Your task to perform on an android device: change the clock display to show seconds Image 0: 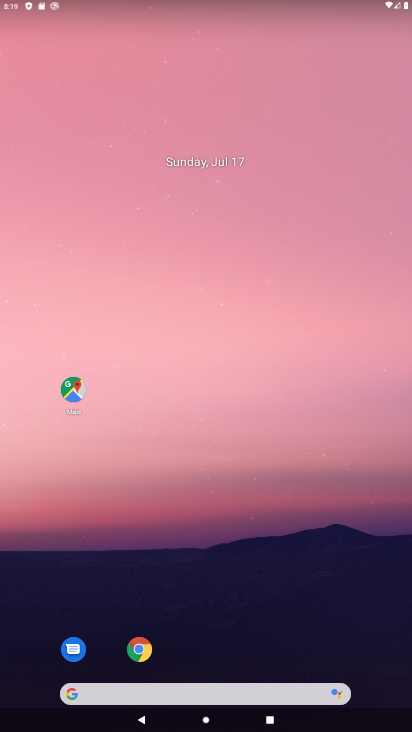
Step 0: drag from (197, 607) to (203, 115)
Your task to perform on an android device: change the clock display to show seconds Image 1: 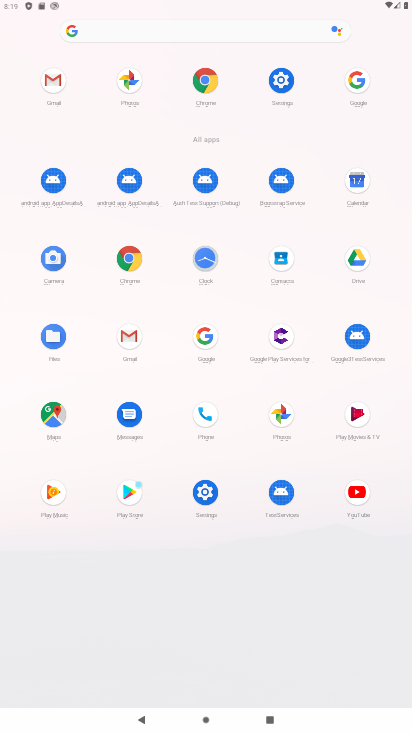
Step 1: click (204, 254)
Your task to perform on an android device: change the clock display to show seconds Image 2: 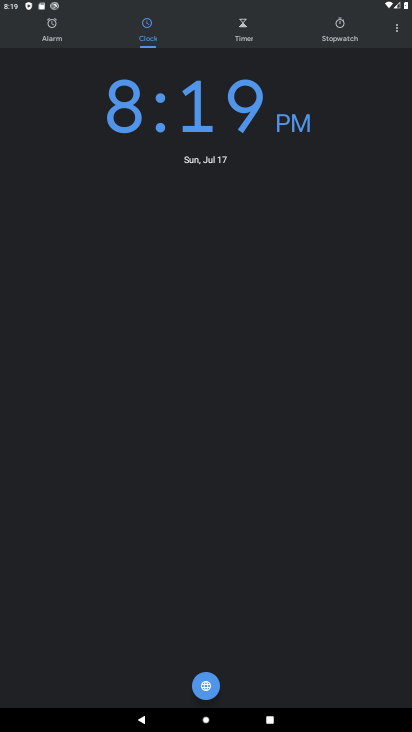
Step 2: click (395, 27)
Your task to perform on an android device: change the clock display to show seconds Image 3: 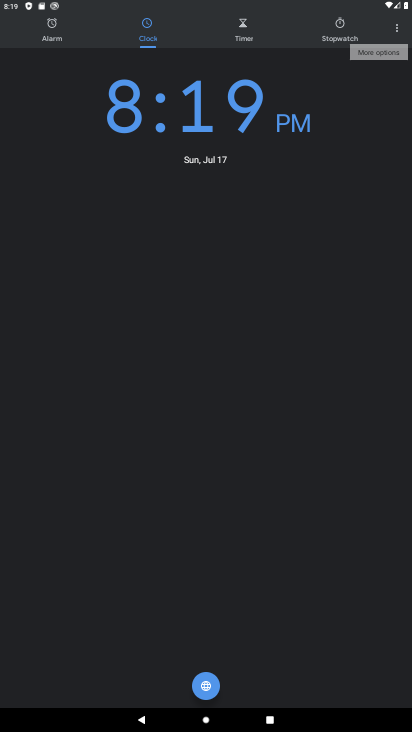
Step 3: click (391, 29)
Your task to perform on an android device: change the clock display to show seconds Image 4: 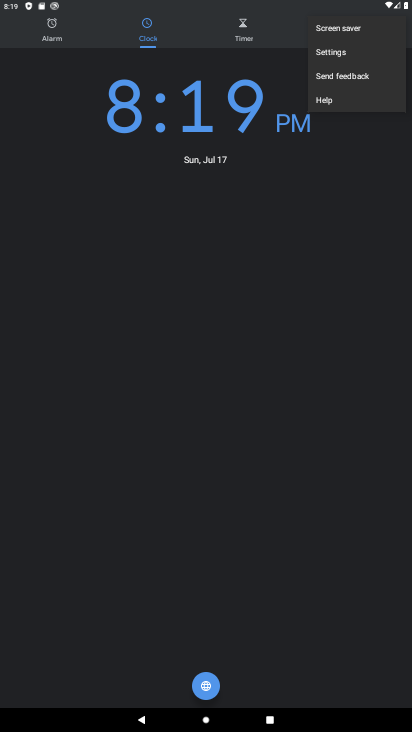
Step 4: click (332, 47)
Your task to perform on an android device: change the clock display to show seconds Image 5: 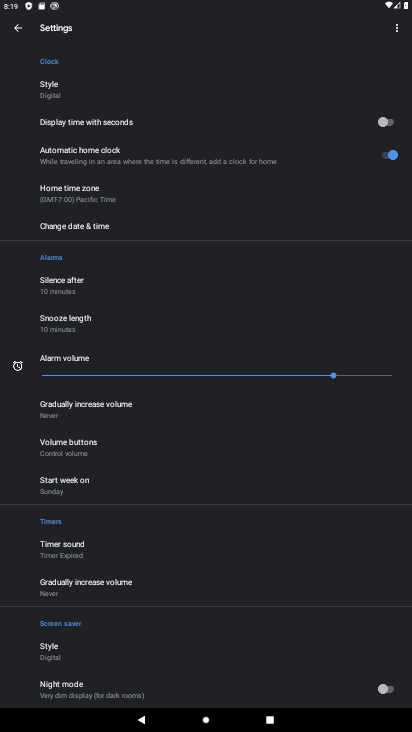
Step 5: click (392, 118)
Your task to perform on an android device: change the clock display to show seconds Image 6: 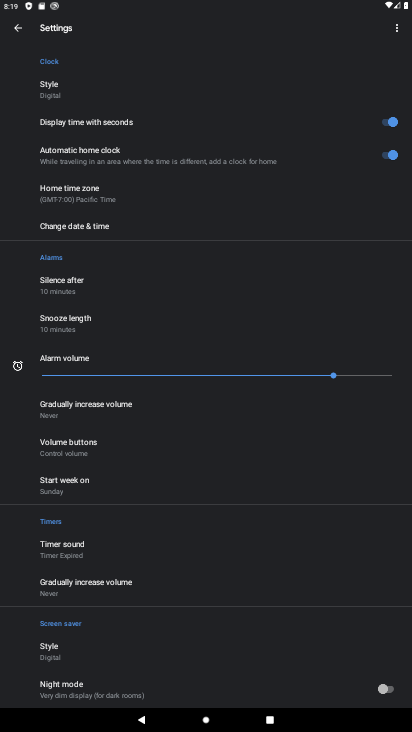
Step 6: task complete